Your task to perform on an android device: turn off wifi Image 0: 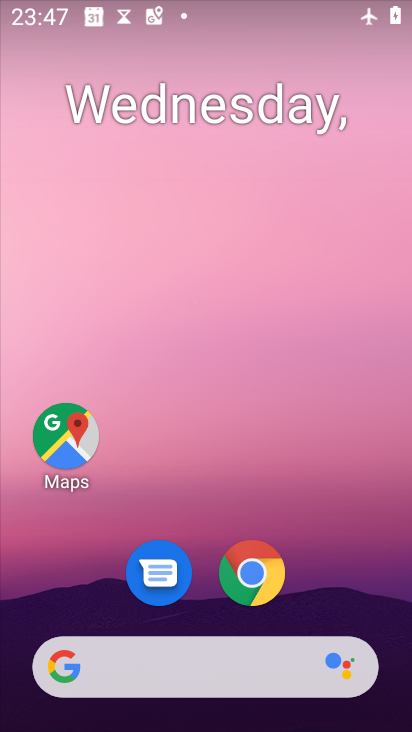
Step 0: drag from (307, 597) to (302, 307)
Your task to perform on an android device: turn off wifi Image 1: 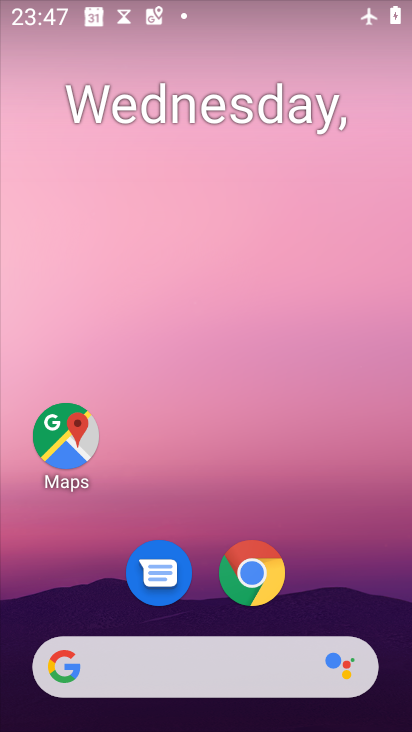
Step 1: drag from (292, 586) to (311, 246)
Your task to perform on an android device: turn off wifi Image 2: 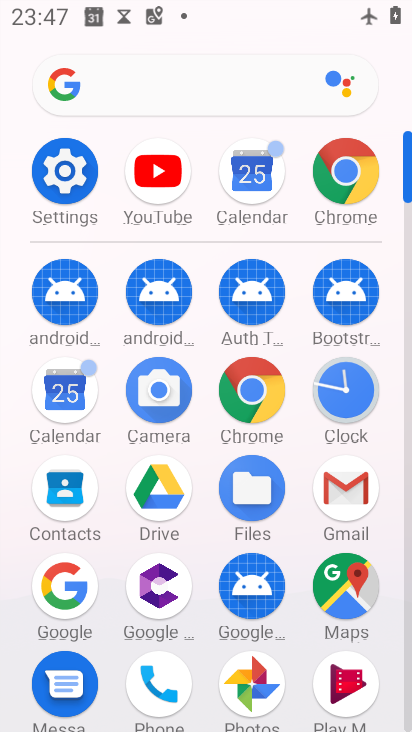
Step 2: click (46, 169)
Your task to perform on an android device: turn off wifi Image 3: 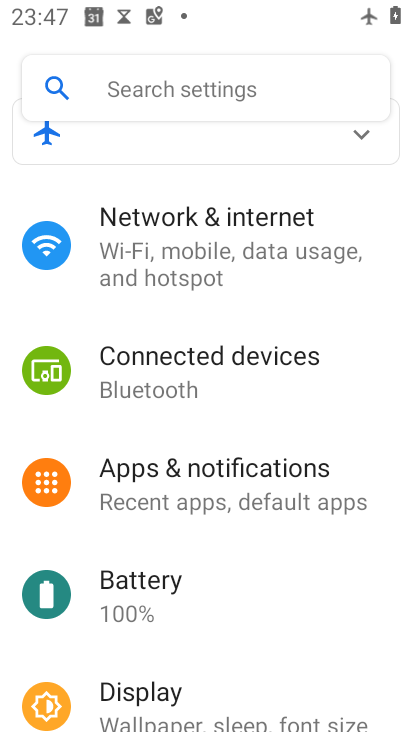
Step 3: click (179, 241)
Your task to perform on an android device: turn off wifi Image 4: 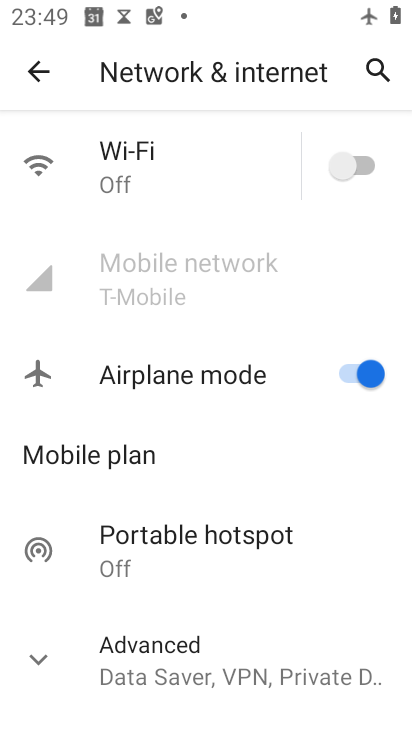
Step 4: task complete